Your task to perform on an android device: see sites visited before in the chrome app Image 0: 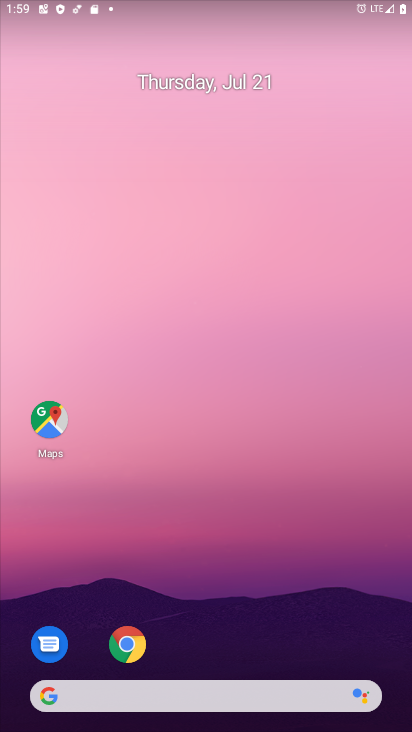
Step 0: click (131, 655)
Your task to perform on an android device: see sites visited before in the chrome app Image 1: 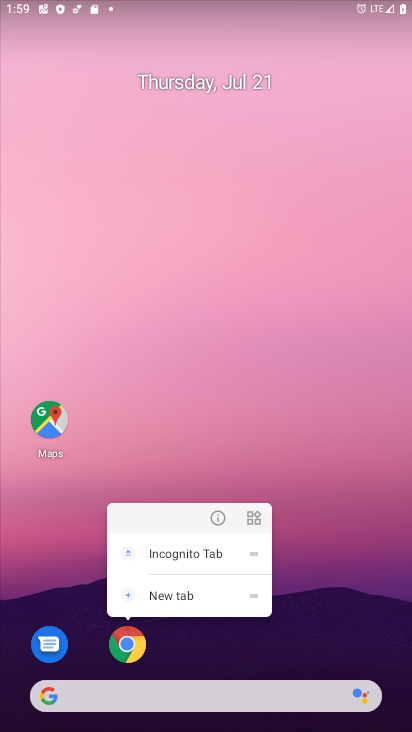
Step 1: click (131, 655)
Your task to perform on an android device: see sites visited before in the chrome app Image 2: 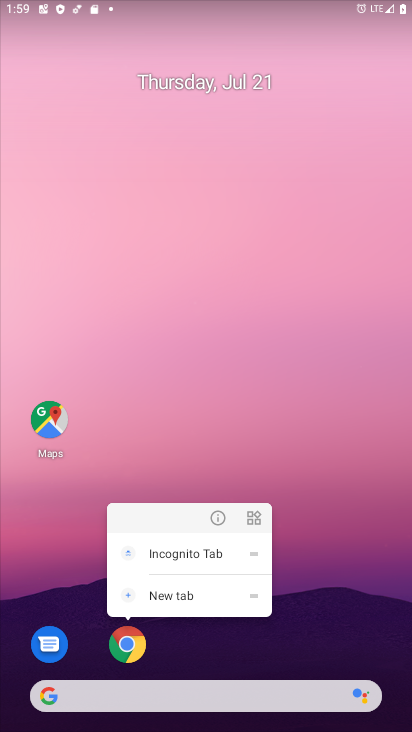
Step 2: task complete